Your task to perform on an android device: Open the phone app and click the voicemail tab. Image 0: 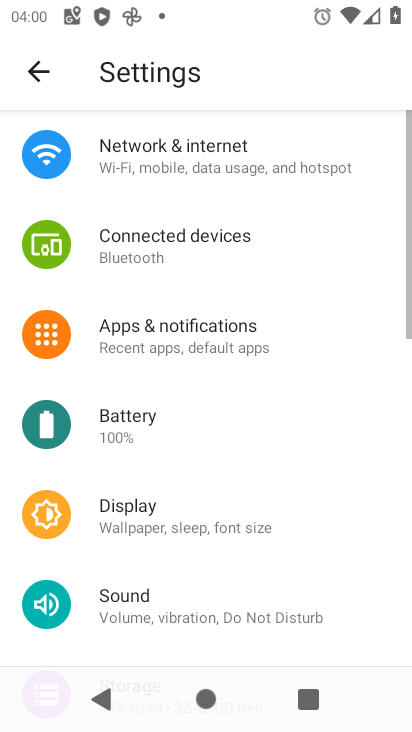
Step 0: press home button
Your task to perform on an android device: Open the phone app and click the voicemail tab. Image 1: 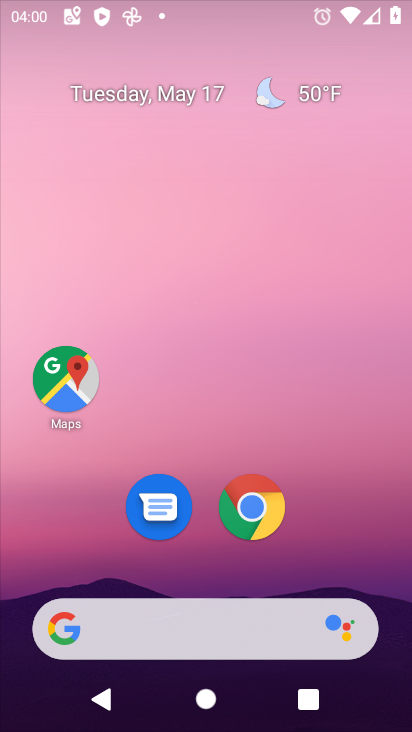
Step 1: drag from (350, 563) to (269, 153)
Your task to perform on an android device: Open the phone app and click the voicemail tab. Image 2: 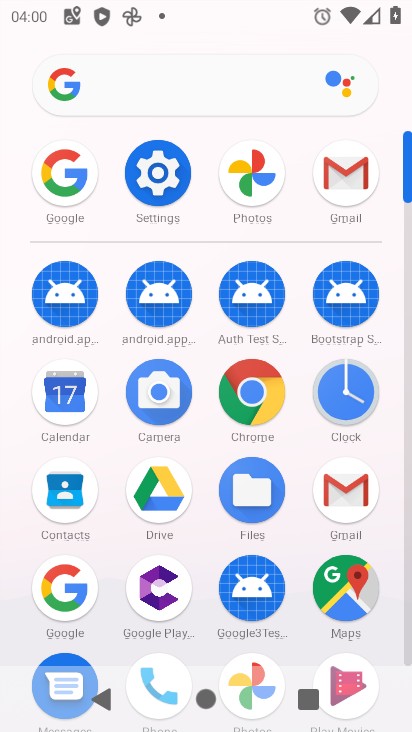
Step 2: click (163, 661)
Your task to perform on an android device: Open the phone app and click the voicemail tab. Image 3: 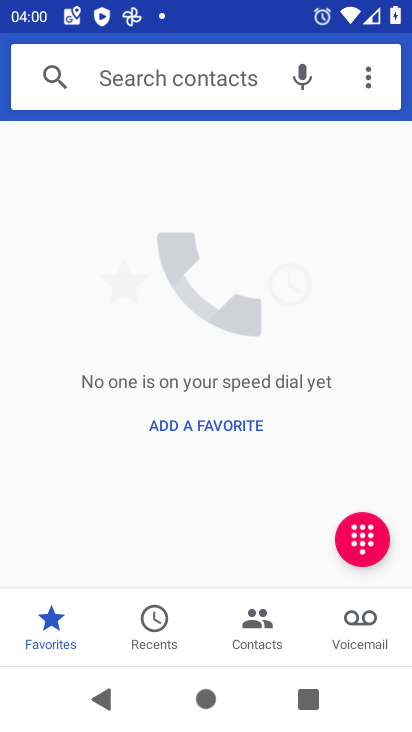
Step 3: click (349, 622)
Your task to perform on an android device: Open the phone app and click the voicemail tab. Image 4: 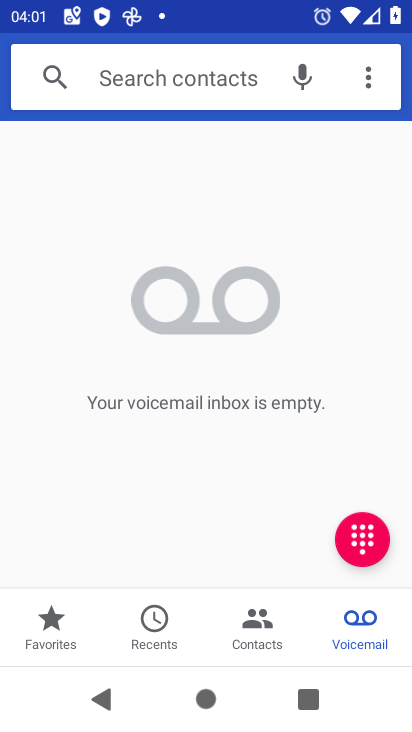
Step 4: task complete